Your task to perform on an android device: Open Maps and search for coffee Image 0: 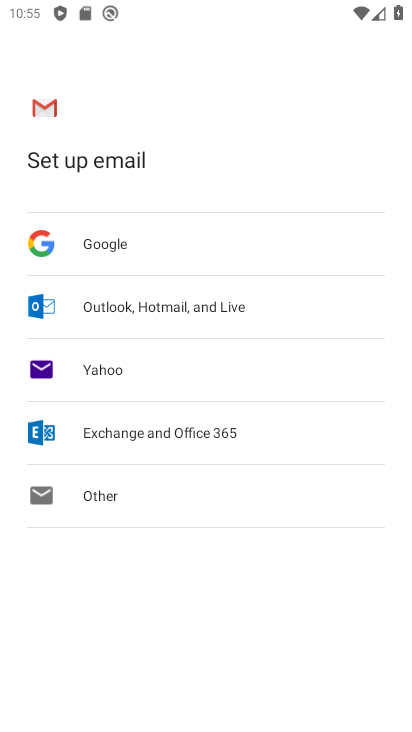
Step 0: press home button
Your task to perform on an android device: Open Maps and search for coffee Image 1: 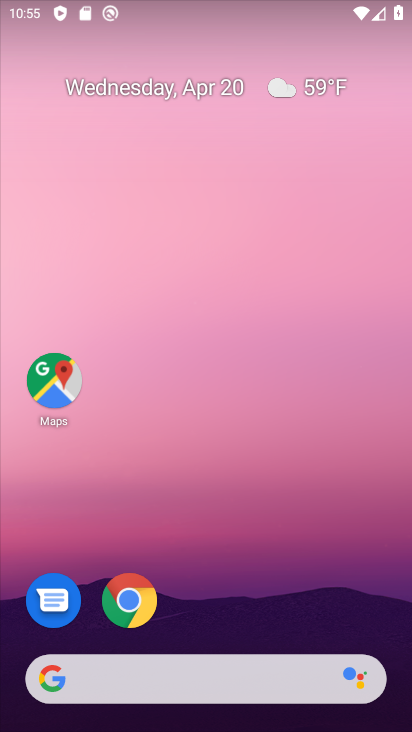
Step 1: click (59, 391)
Your task to perform on an android device: Open Maps and search for coffee Image 2: 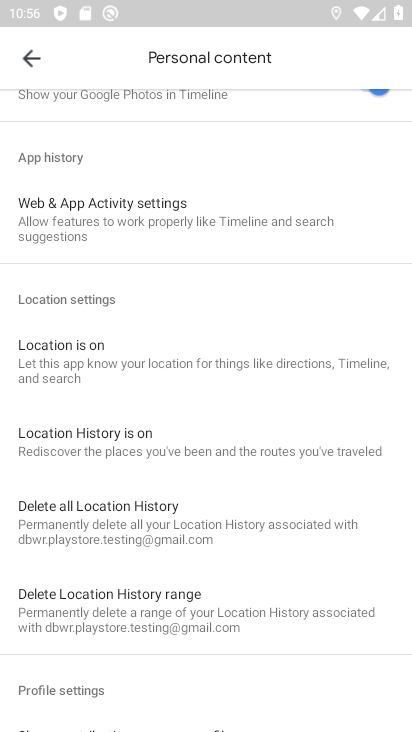
Step 2: click (35, 54)
Your task to perform on an android device: Open Maps and search for coffee Image 3: 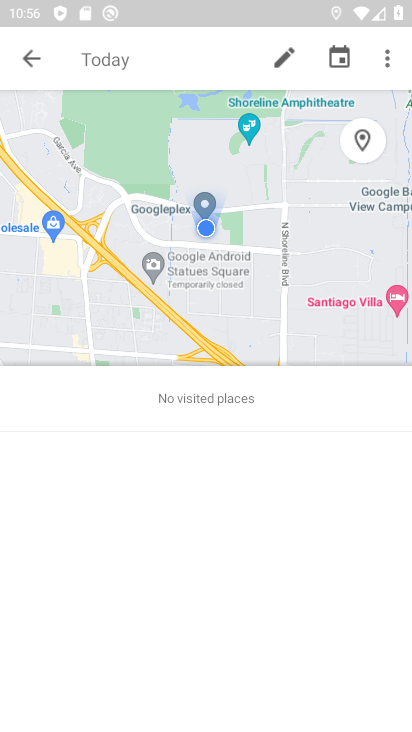
Step 3: click (35, 54)
Your task to perform on an android device: Open Maps and search for coffee Image 4: 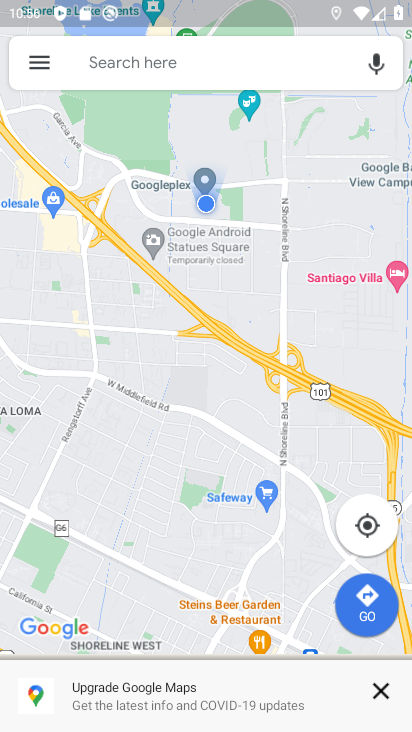
Step 4: click (148, 64)
Your task to perform on an android device: Open Maps and search for coffee Image 5: 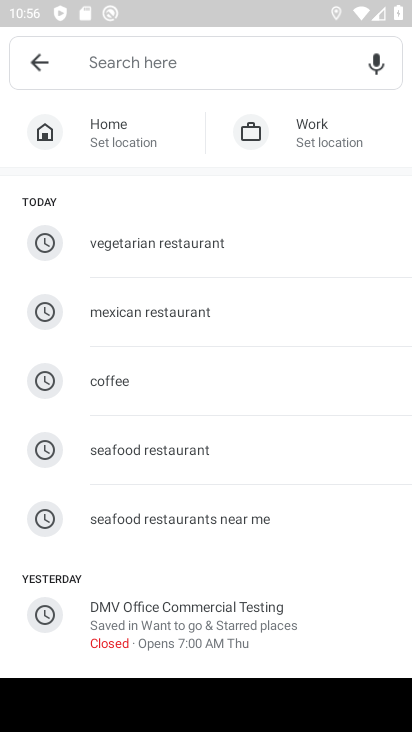
Step 5: click (158, 398)
Your task to perform on an android device: Open Maps and search for coffee Image 6: 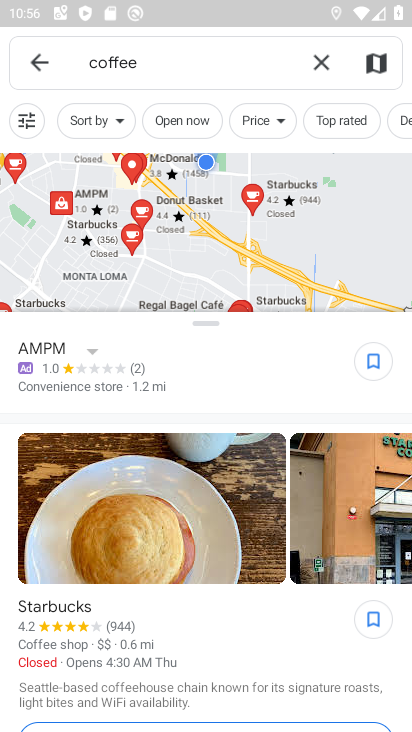
Step 6: task complete